Your task to perform on an android device: toggle sleep mode Image 0: 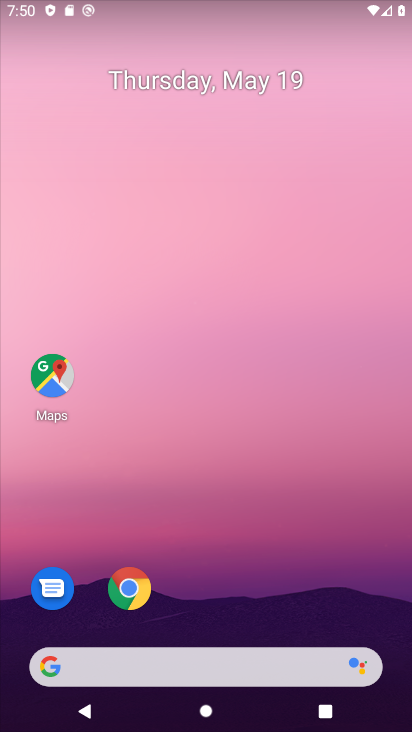
Step 0: drag from (311, 480) to (359, 223)
Your task to perform on an android device: toggle sleep mode Image 1: 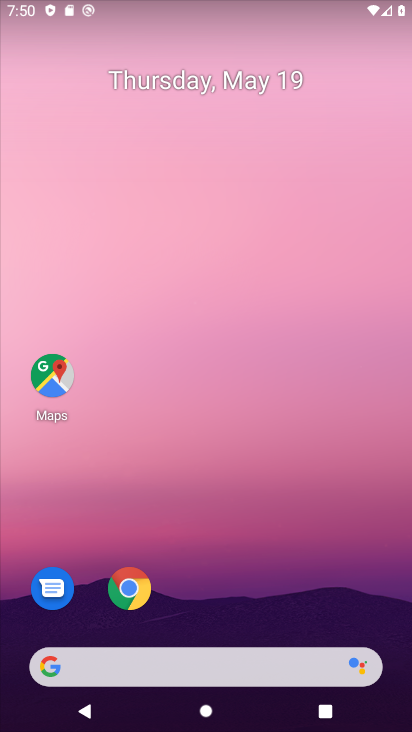
Step 1: drag from (271, 645) to (305, 404)
Your task to perform on an android device: toggle sleep mode Image 2: 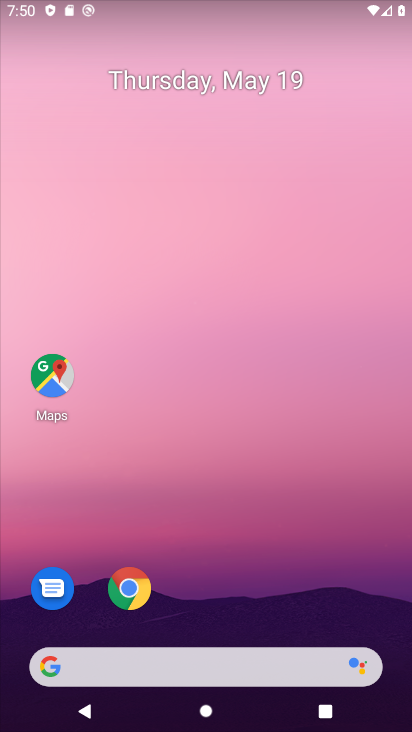
Step 2: drag from (247, 628) to (275, 285)
Your task to perform on an android device: toggle sleep mode Image 3: 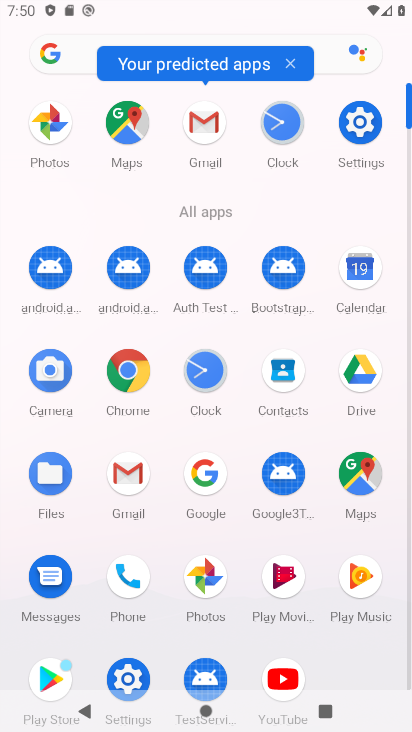
Step 3: click (358, 108)
Your task to perform on an android device: toggle sleep mode Image 4: 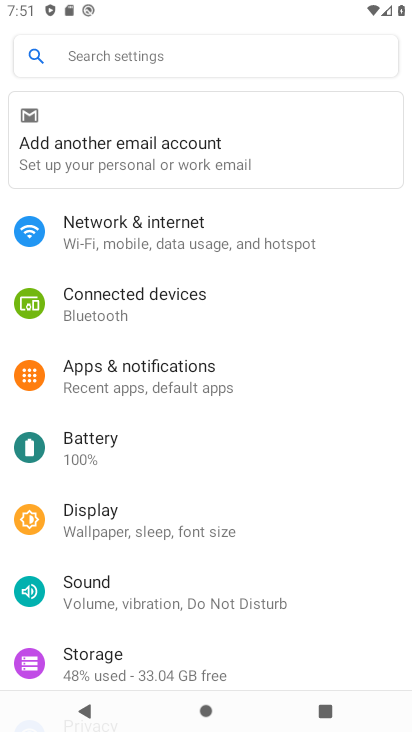
Step 4: task complete